Your task to perform on an android device: turn notification dots on Image 0: 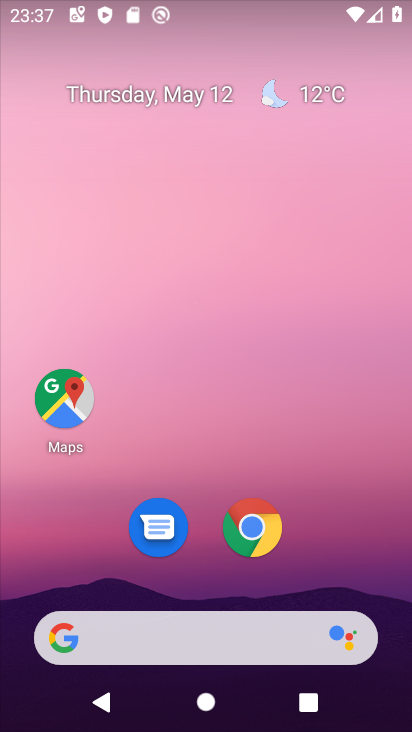
Step 0: drag from (5, 674) to (209, 250)
Your task to perform on an android device: turn notification dots on Image 1: 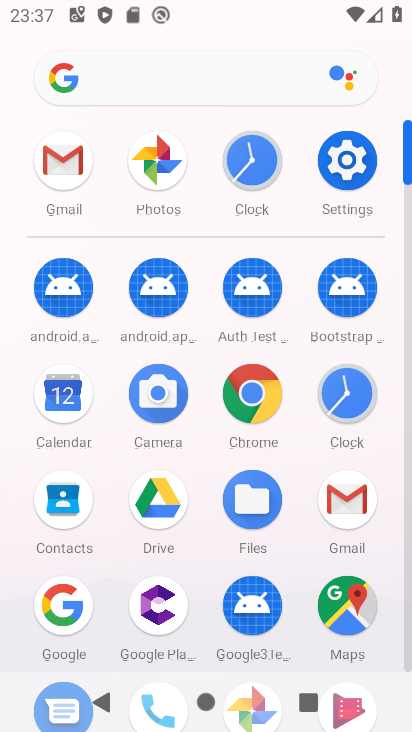
Step 1: click (360, 172)
Your task to perform on an android device: turn notification dots on Image 2: 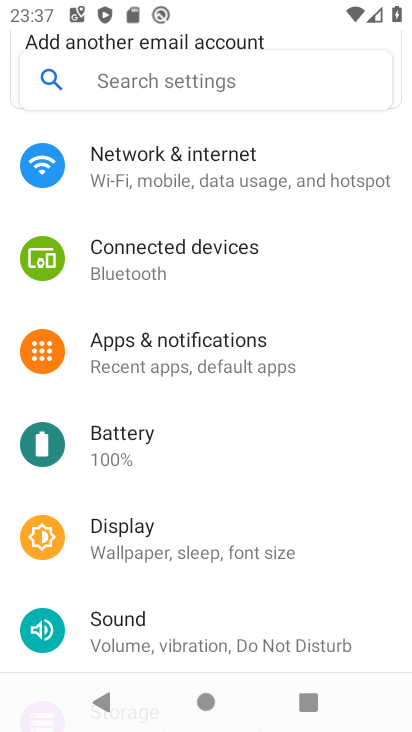
Step 2: click (153, 358)
Your task to perform on an android device: turn notification dots on Image 3: 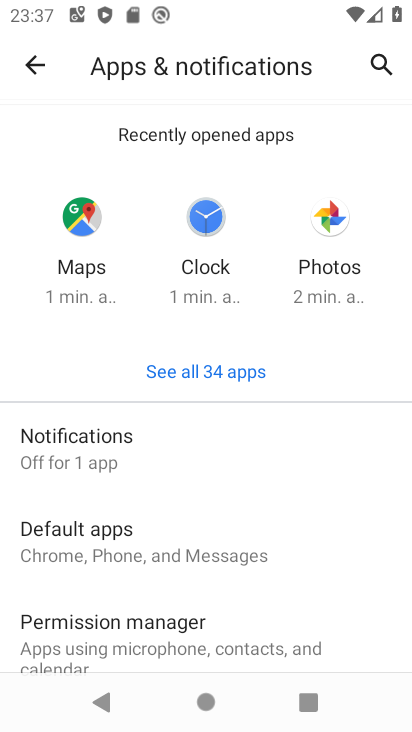
Step 3: click (85, 454)
Your task to perform on an android device: turn notification dots on Image 4: 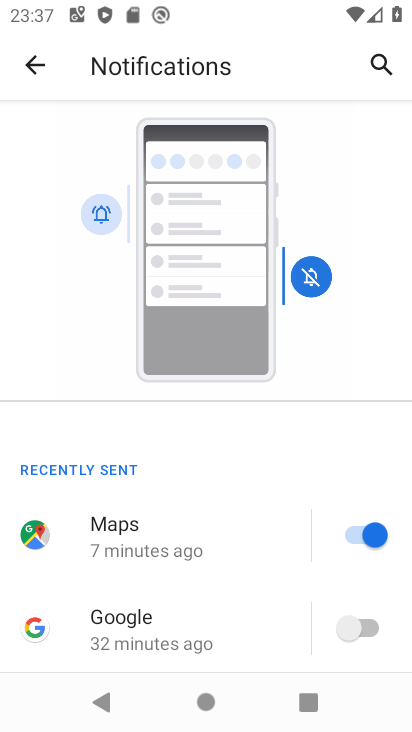
Step 4: drag from (91, 667) to (238, 239)
Your task to perform on an android device: turn notification dots on Image 5: 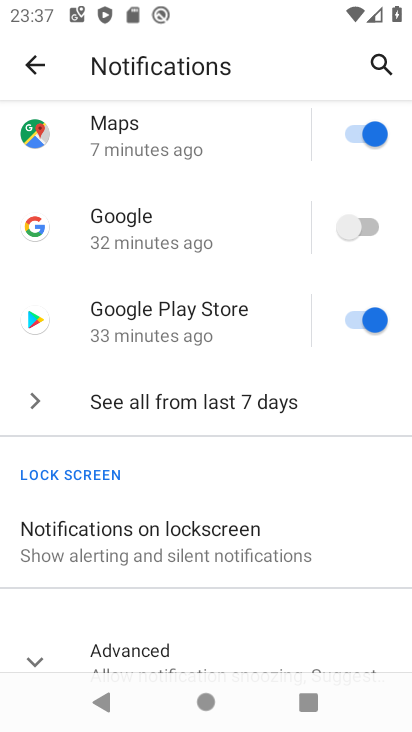
Step 5: drag from (99, 589) to (277, 215)
Your task to perform on an android device: turn notification dots on Image 6: 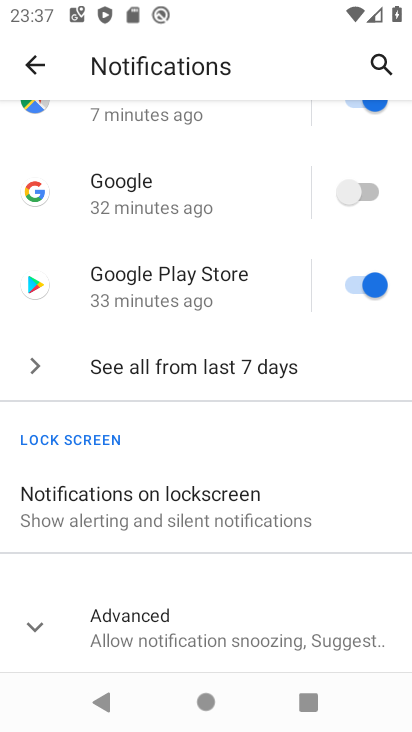
Step 6: click (139, 598)
Your task to perform on an android device: turn notification dots on Image 7: 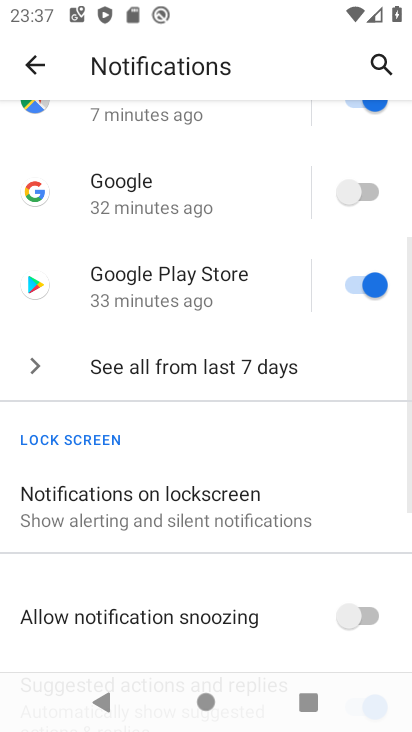
Step 7: task complete